Your task to perform on an android device: turn on showing notifications on the lock screen Image 0: 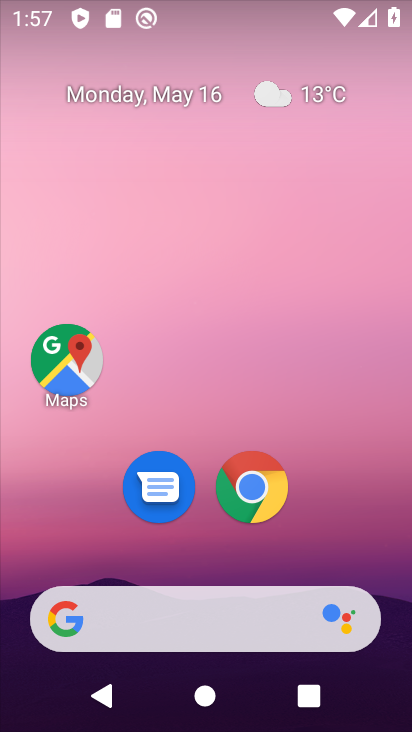
Step 0: drag from (337, 484) to (92, 52)
Your task to perform on an android device: turn on showing notifications on the lock screen Image 1: 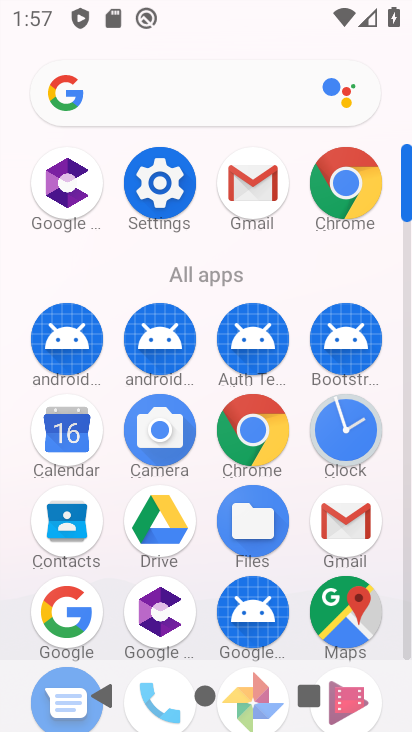
Step 1: click (178, 207)
Your task to perform on an android device: turn on showing notifications on the lock screen Image 2: 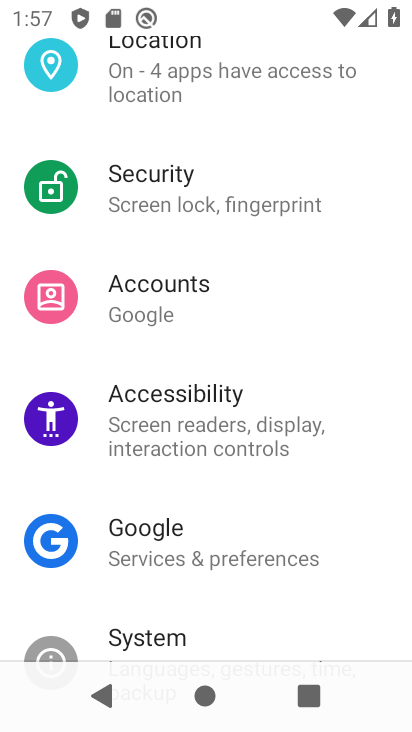
Step 2: drag from (184, 141) to (172, 559)
Your task to perform on an android device: turn on showing notifications on the lock screen Image 3: 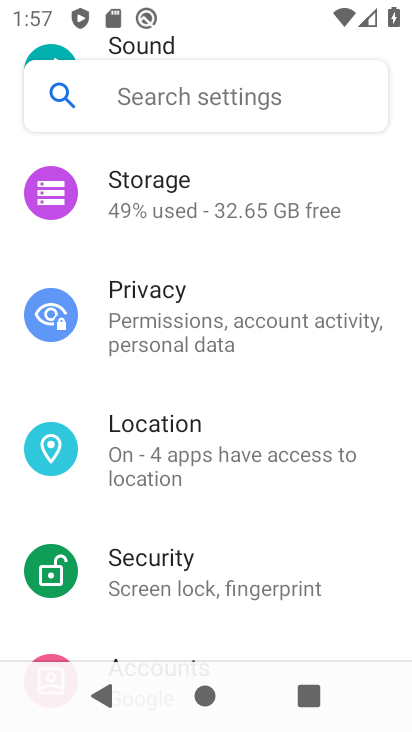
Step 3: drag from (190, 202) to (172, 579)
Your task to perform on an android device: turn on showing notifications on the lock screen Image 4: 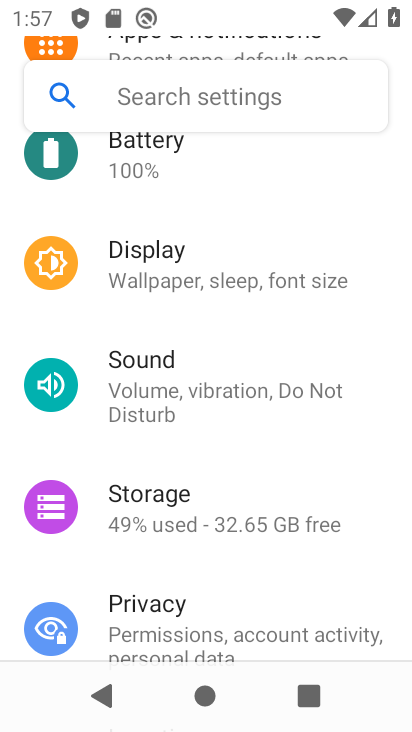
Step 4: drag from (167, 256) to (158, 539)
Your task to perform on an android device: turn on showing notifications on the lock screen Image 5: 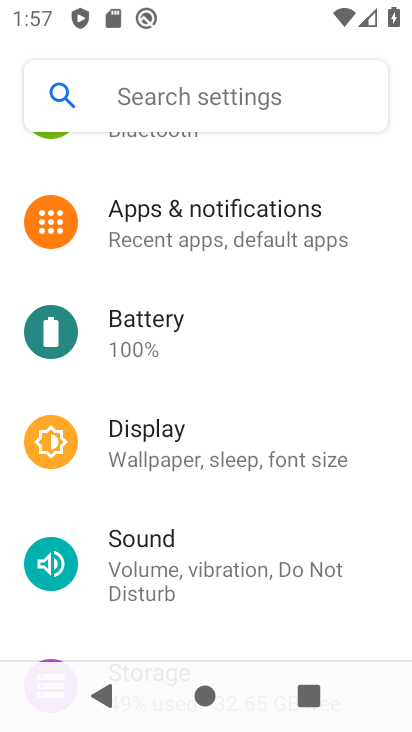
Step 5: click (208, 231)
Your task to perform on an android device: turn on showing notifications on the lock screen Image 6: 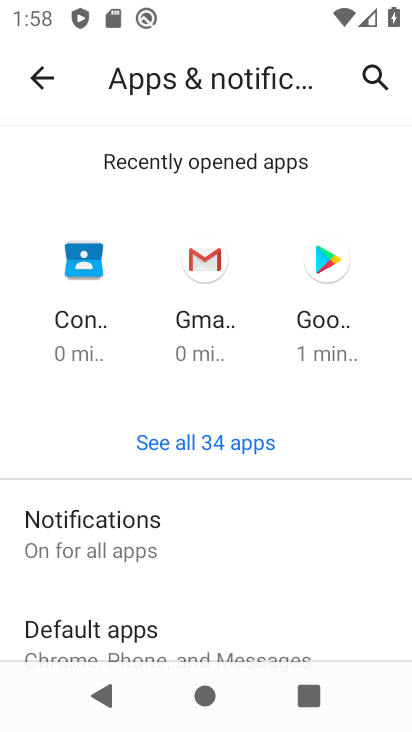
Step 6: drag from (216, 615) to (193, 315)
Your task to perform on an android device: turn on showing notifications on the lock screen Image 7: 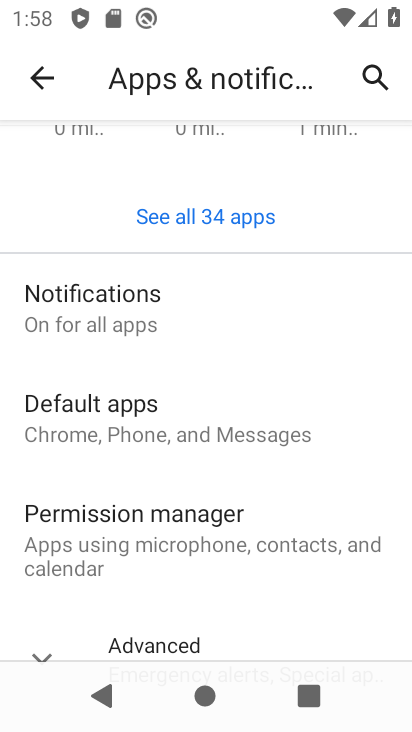
Step 7: click (81, 321)
Your task to perform on an android device: turn on showing notifications on the lock screen Image 8: 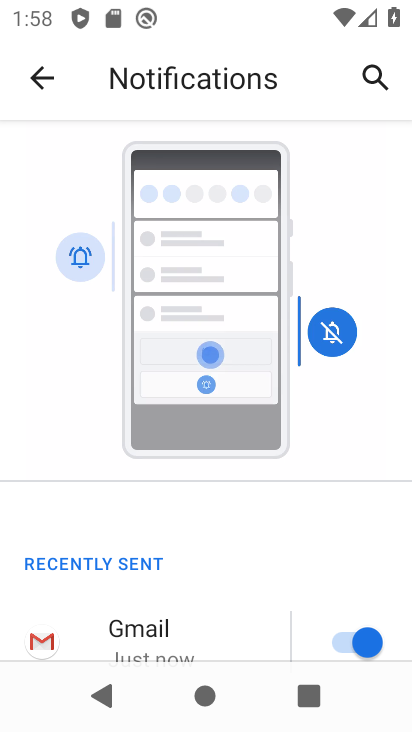
Step 8: drag from (96, 566) to (93, 227)
Your task to perform on an android device: turn on showing notifications on the lock screen Image 9: 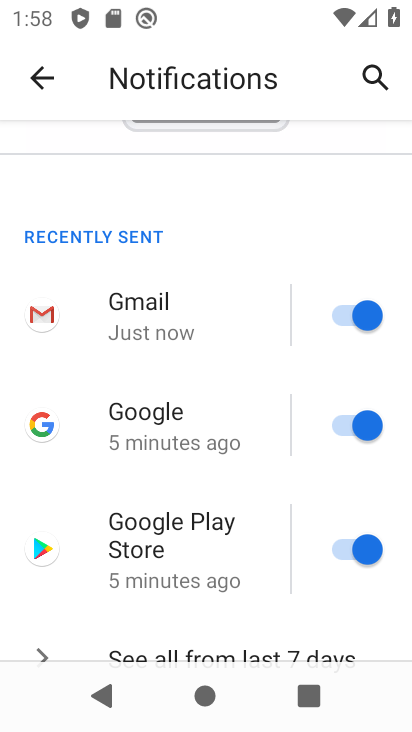
Step 9: drag from (105, 621) to (110, 278)
Your task to perform on an android device: turn on showing notifications on the lock screen Image 10: 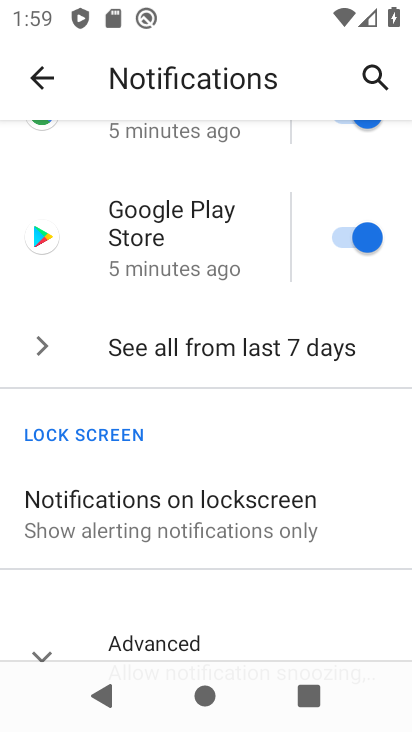
Step 10: click (113, 521)
Your task to perform on an android device: turn on showing notifications on the lock screen Image 11: 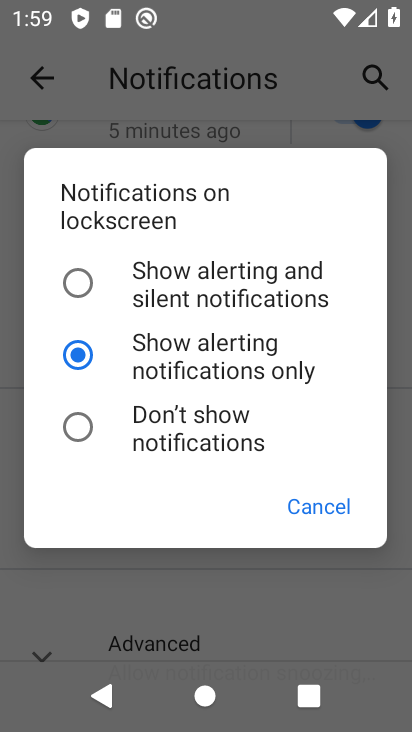
Step 11: click (145, 303)
Your task to perform on an android device: turn on showing notifications on the lock screen Image 12: 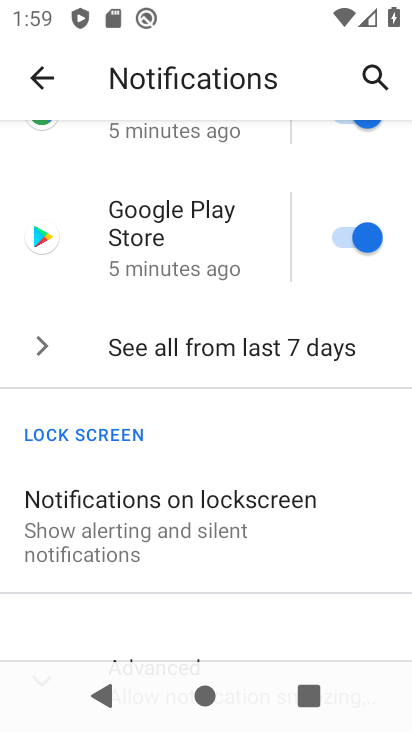
Step 12: task complete